Your task to perform on an android device: Go to Android settings Image 0: 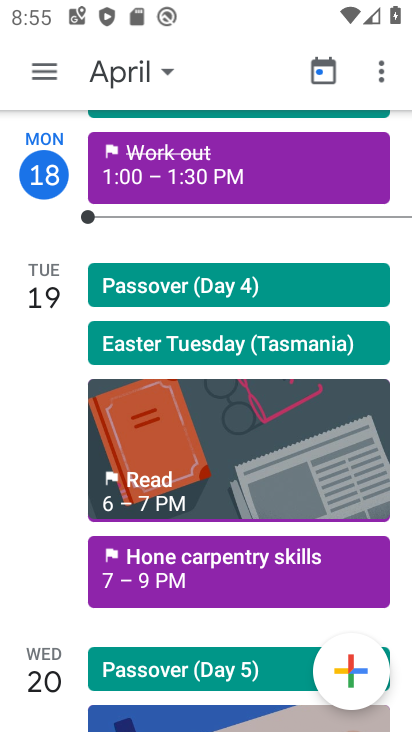
Step 0: press home button
Your task to perform on an android device: Go to Android settings Image 1: 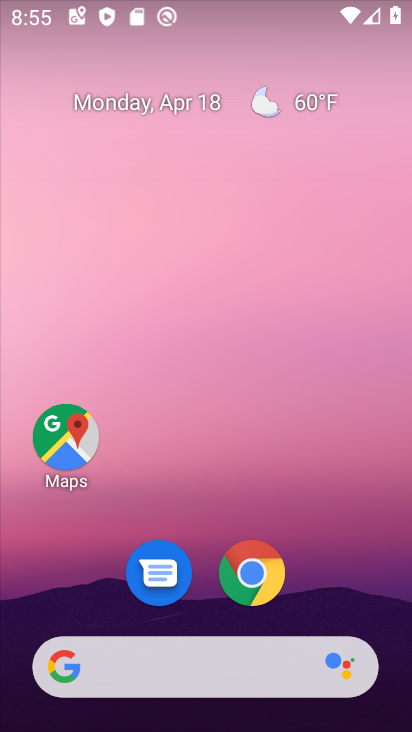
Step 1: drag from (296, 392) to (324, 110)
Your task to perform on an android device: Go to Android settings Image 2: 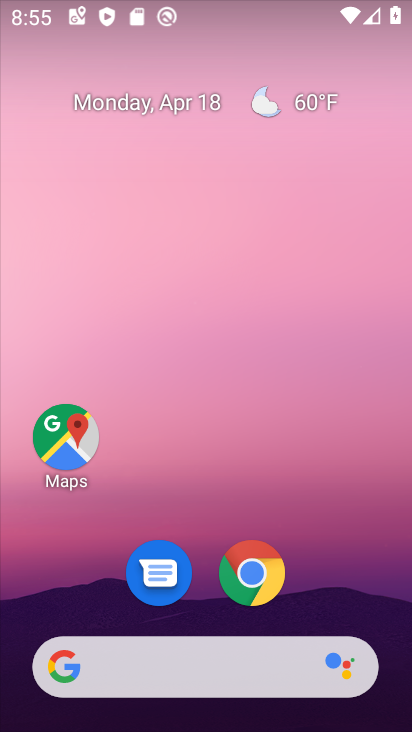
Step 2: drag from (364, 449) to (364, 35)
Your task to perform on an android device: Go to Android settings Image 3: 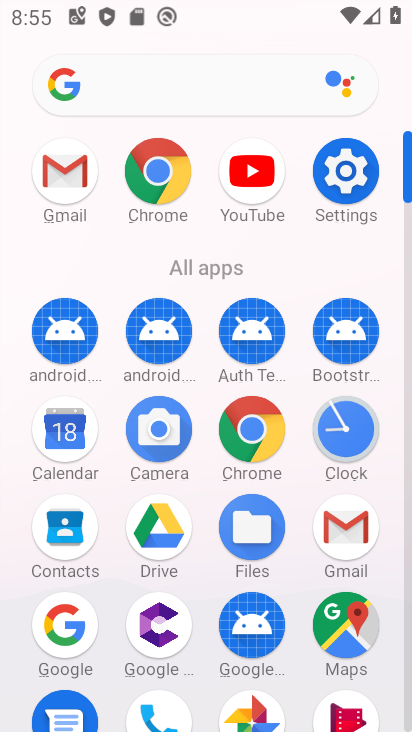
Step 3: click (352, 174)
Your task to perform on an android device: Go to Android settings Image 4: 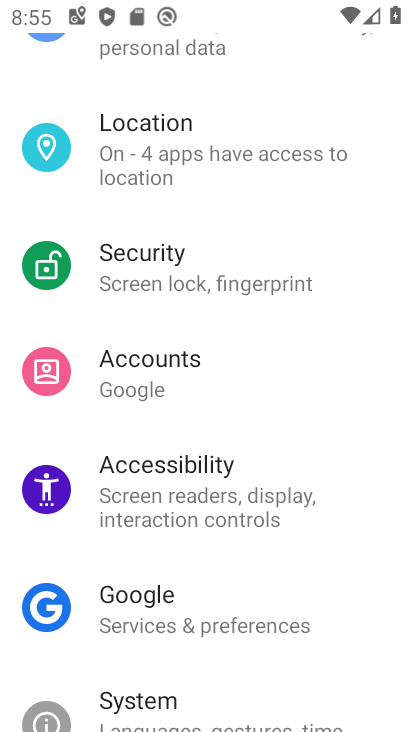
Step 4: drag from (214, 553) to (238, 217)
Your task to perform on an android device: Go to Android settings Image 5: 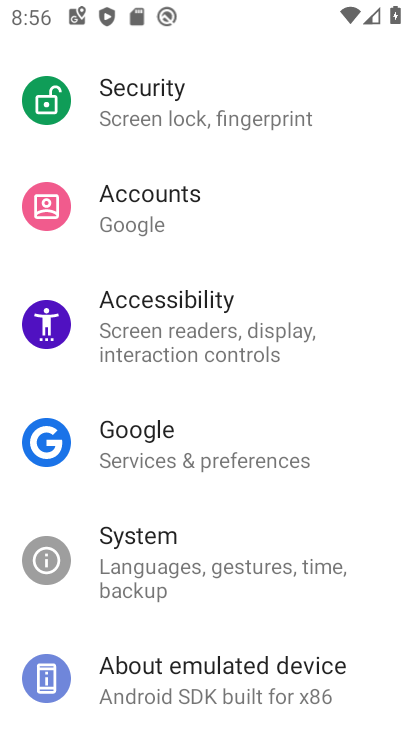
Step 5: click (237, 684)
Your task to perform on an android device: Go to Android settings Image 6: 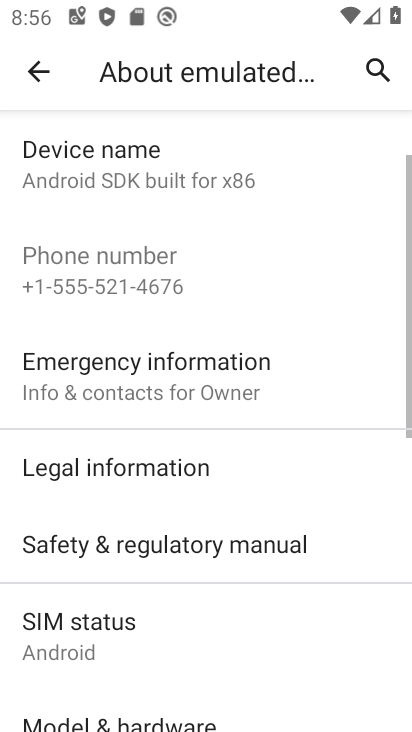
Step 6: drag from (214, 680) to (276, 150)
Your task to perform on an android device: Go to Android settings Image 7: 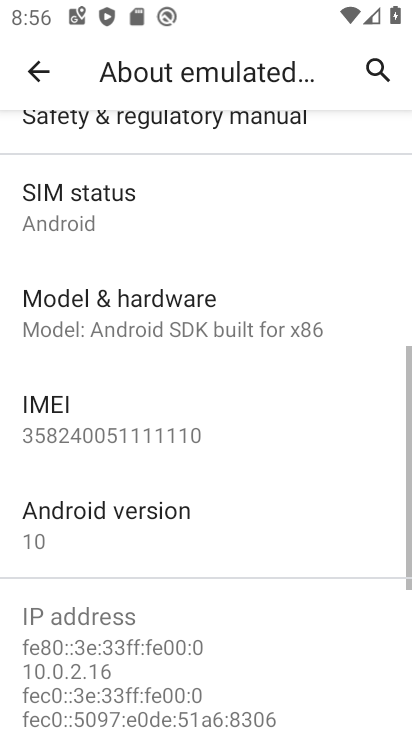
Step 7: click (192, 503)
Your task to perform on an android device: Go to Android settings Image 8: 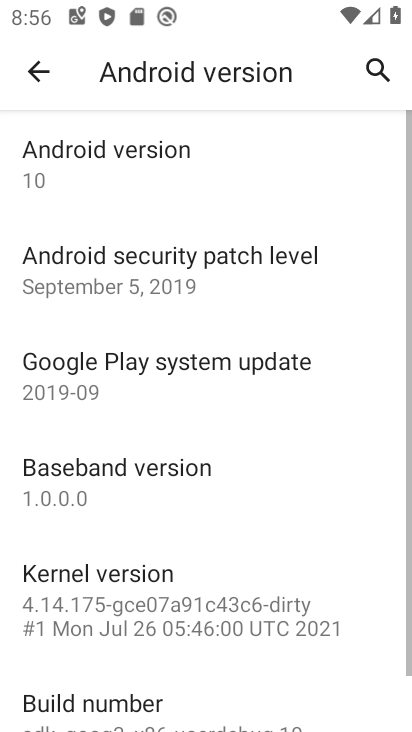
Step 8: drag from (205, 616) to (288, 171)
Your task to perform on an android device: Go to Android settings Image 9: 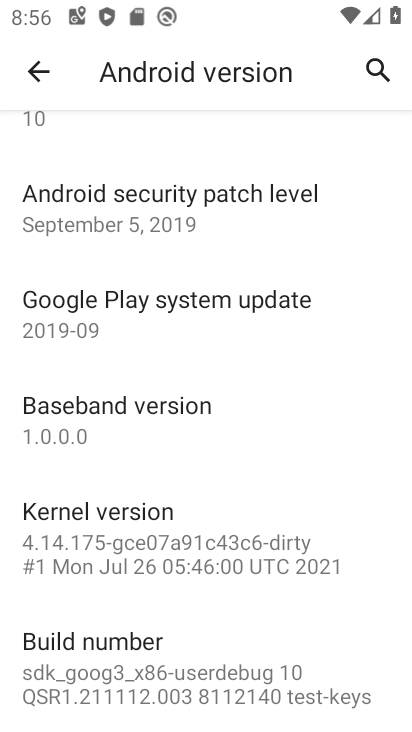
Step 9: press back button
Your task to perform on an android device: Go to Android settings Image 10: 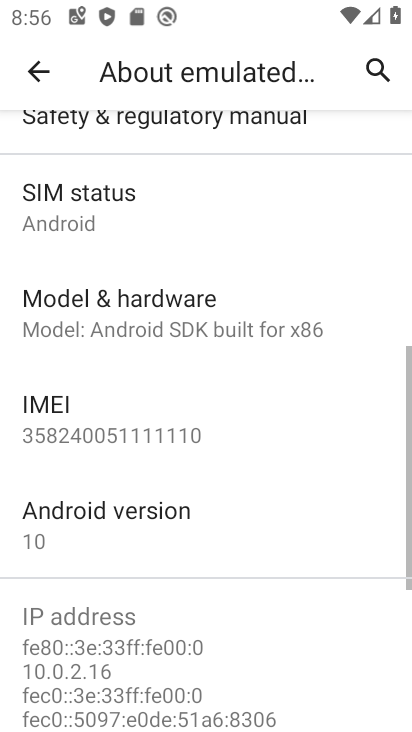
Step 10: drag from (165, 524) to (147, 174)
Your task to perform on an android device: Go to Android settings Image 11: 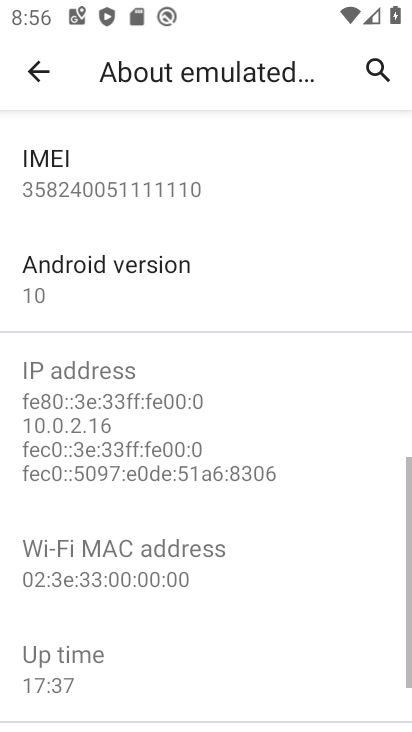
Step 11: click (189, 654)
Your task to perform on an android device: Go to Android settings Image 12: 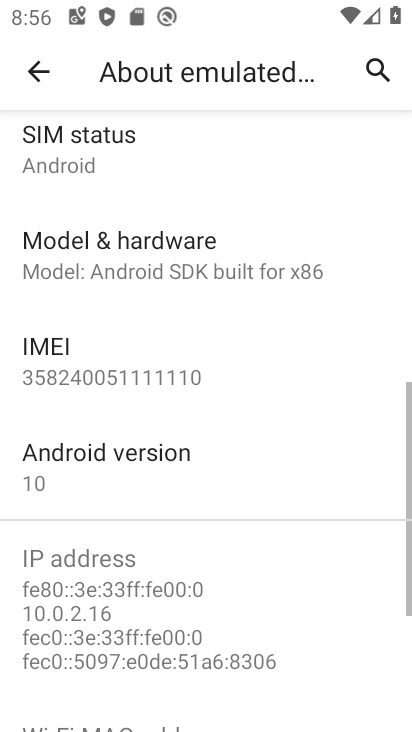
Step 12: task complete